Your task to perform on an android device: View the shopping cart on walmart. Search for energizer triple a on walmart, select the first entry, and add it to the cart. Image 0: 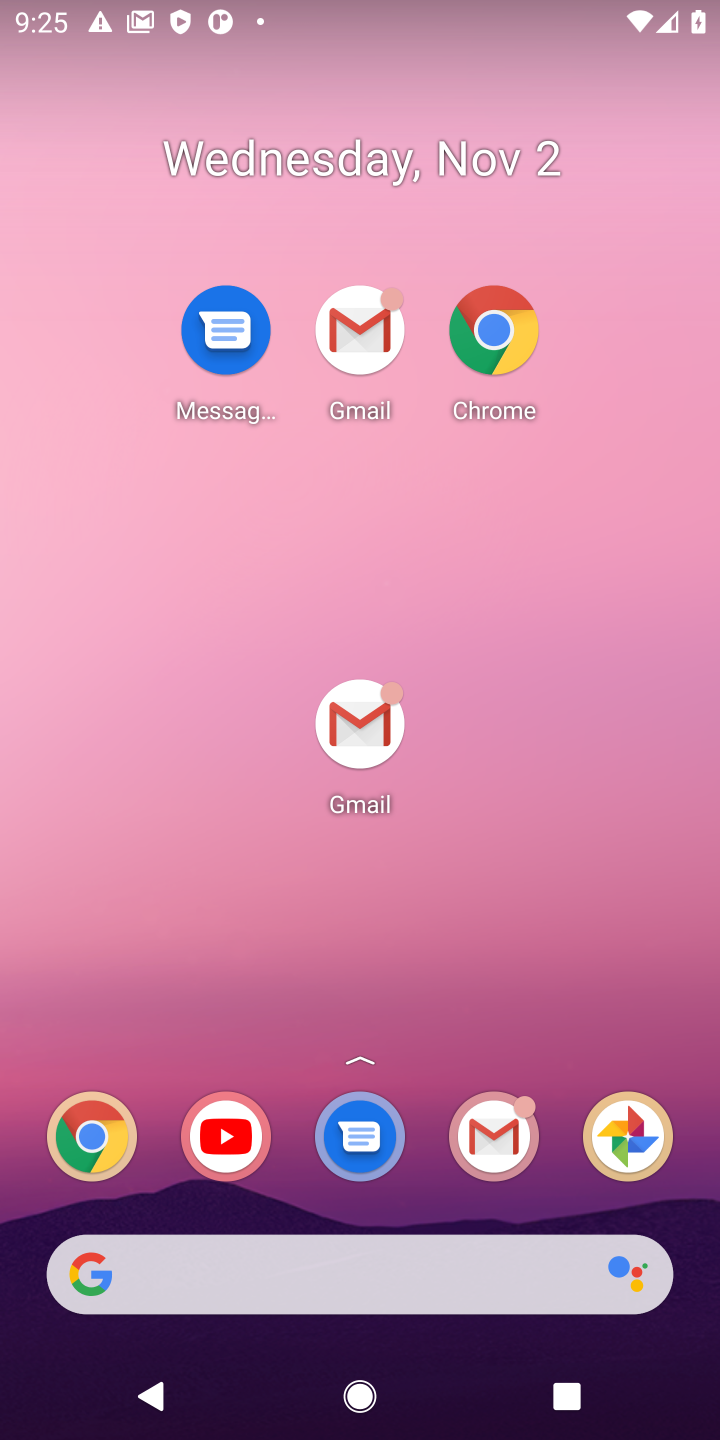
Step 0: drag from (309, 1245) to (308, 307)
Your task to perform on an android device: View the shopping cart on walmart. Search for energizer triple a on walmart, select the first entry, and add it to the cart. Image 1: 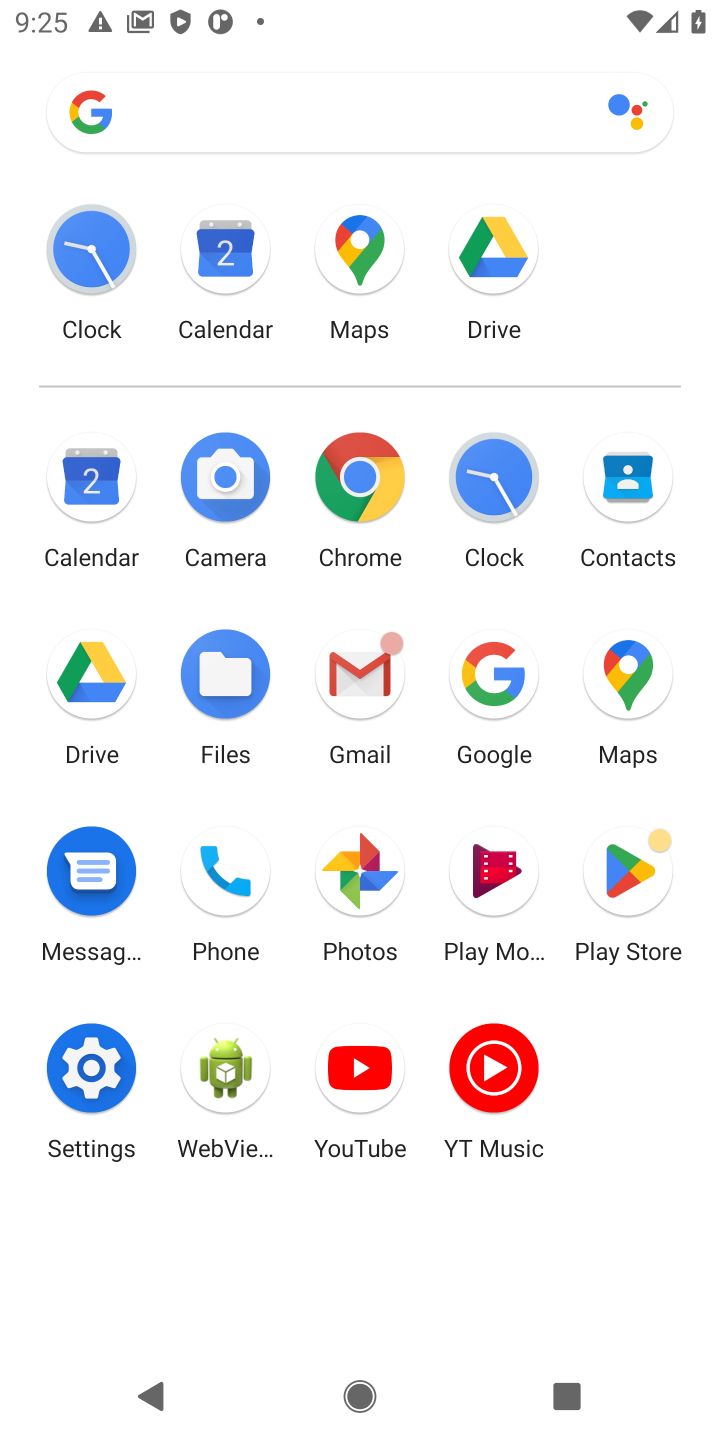
Step 1: click (486, 663)
Your task to perform on an android device: View the shopping cart on walmart. Search for energizer triple a on walmart, select the first entry, and add it to the cart. Image 2: 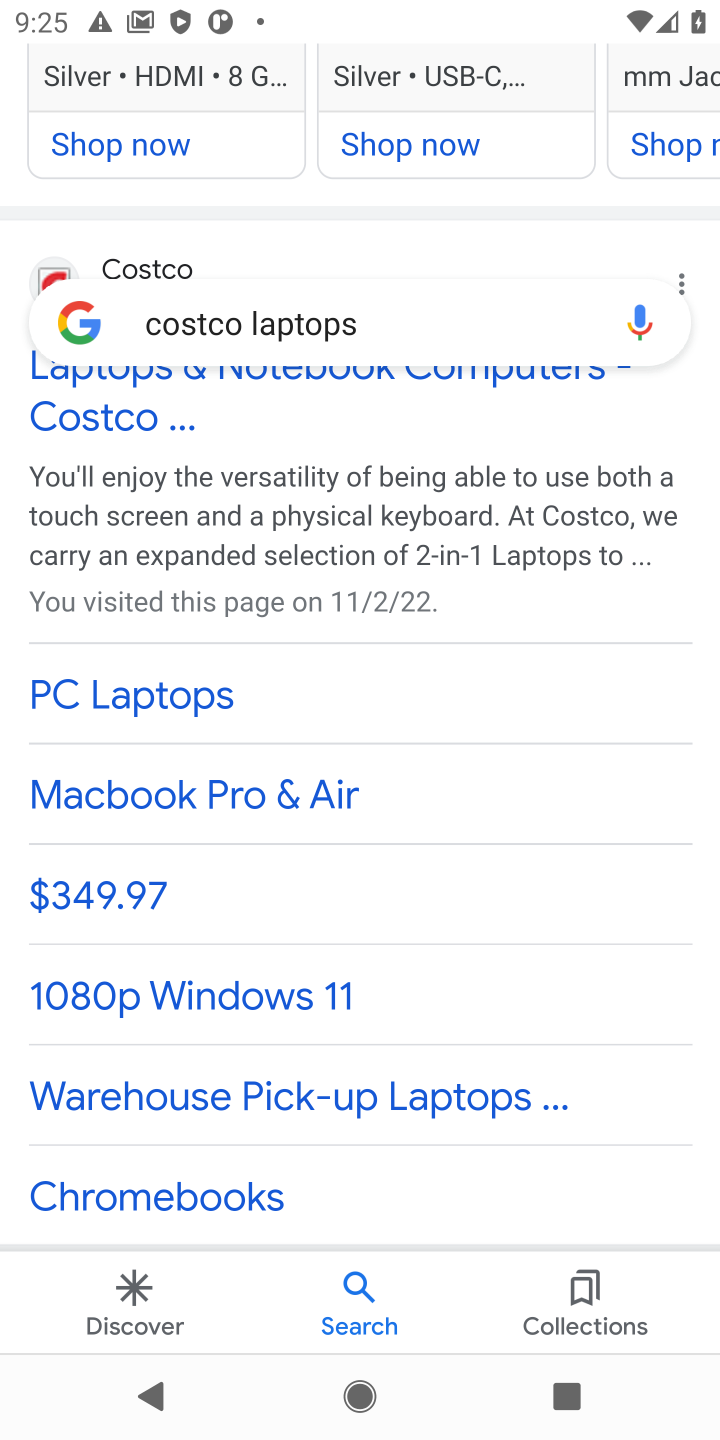
Step 2: click (369, 312)
Your task to perform on an android device: View the shopping cart on walmart. Search for energizer triple a on walmart, select the first entry, and add it to the cart. Image 3: 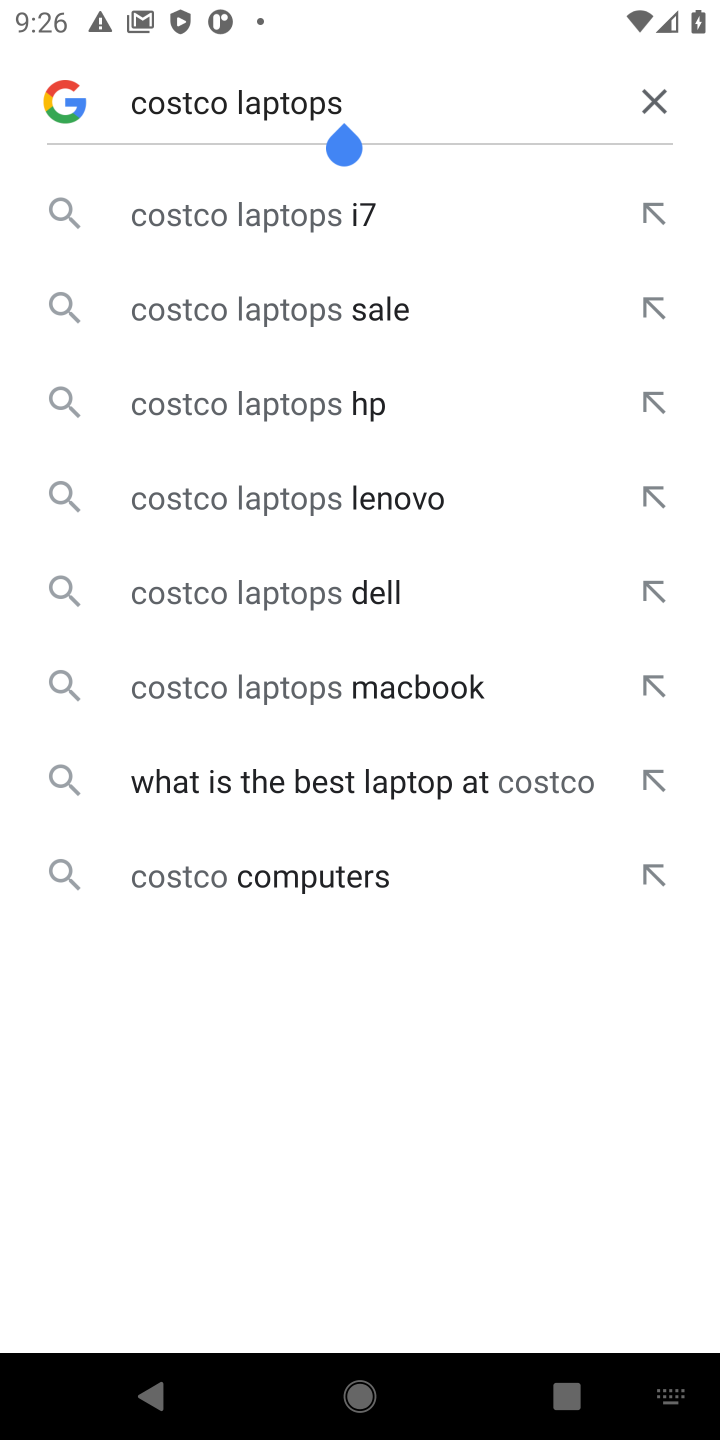
Step 3: click (654, 100)
Your task to perform on an android device: View the shopping cart on walmart. Search for energizer triple a on walmart, select the first entry, and add it to the cart. Image 4: 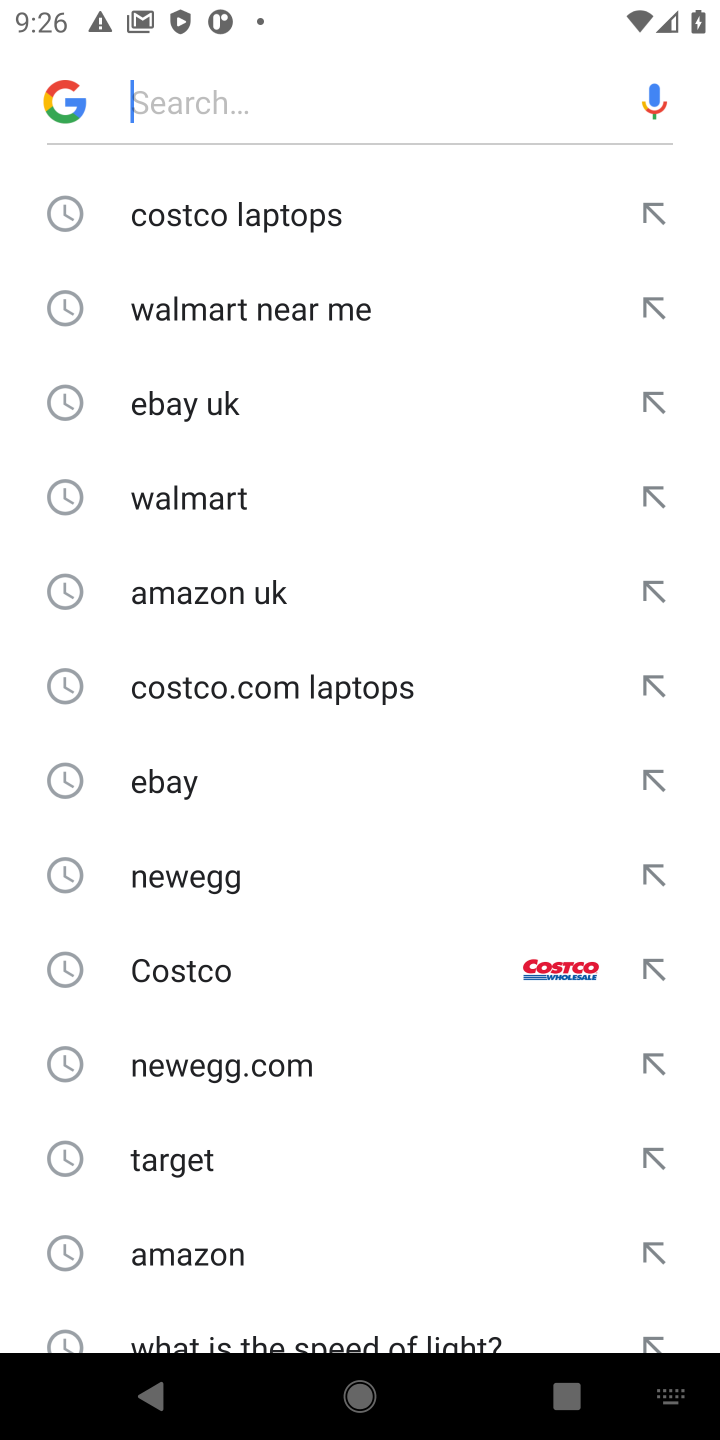
Step 4: click (274, 88)
Your task to perform on an android device: View the shopping cart on walmart. Search for energizer triple a on walmart, select the first entry, and add it to the cart. Image 5: 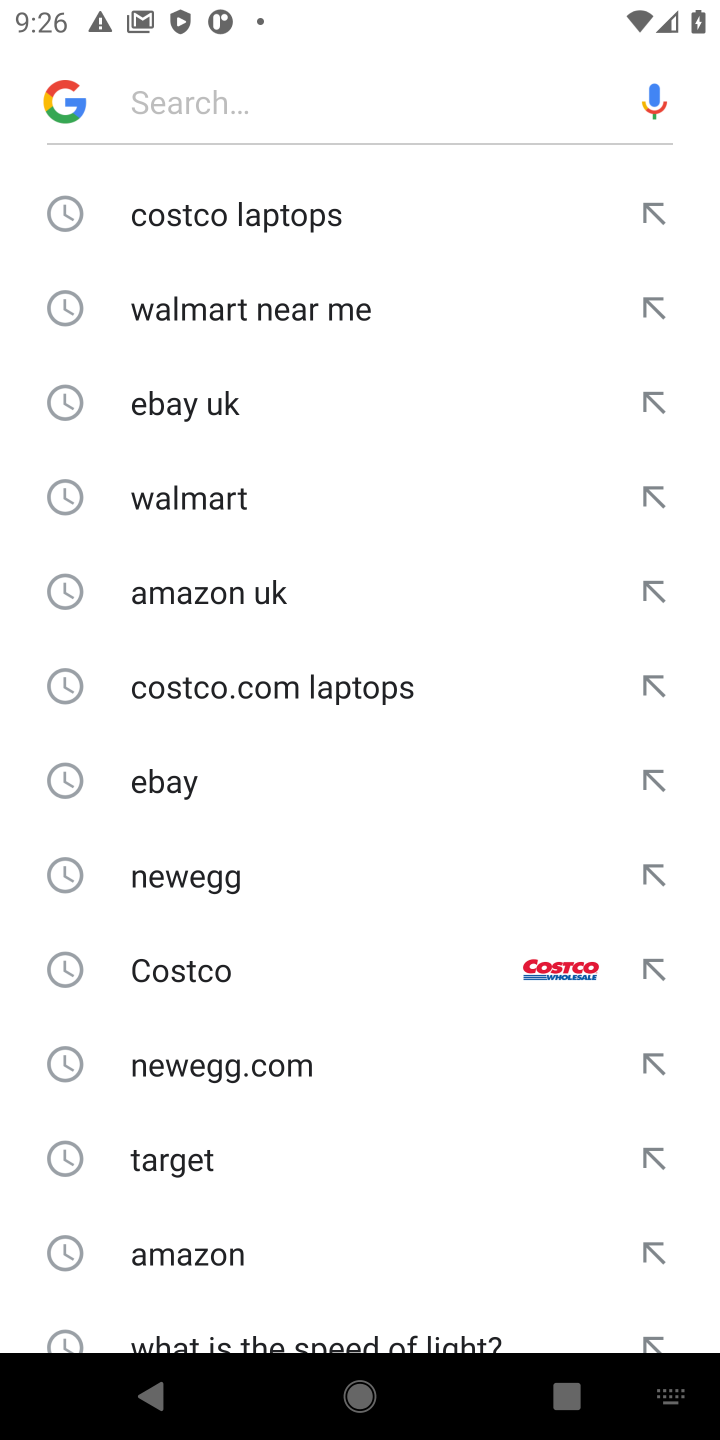
Step 5: type "walmart "
Your task to perform on an android device: View the shopping cart on walmart. Search for energizer triple a on walmart, select the first entry, and add it to the cart. Image 6: 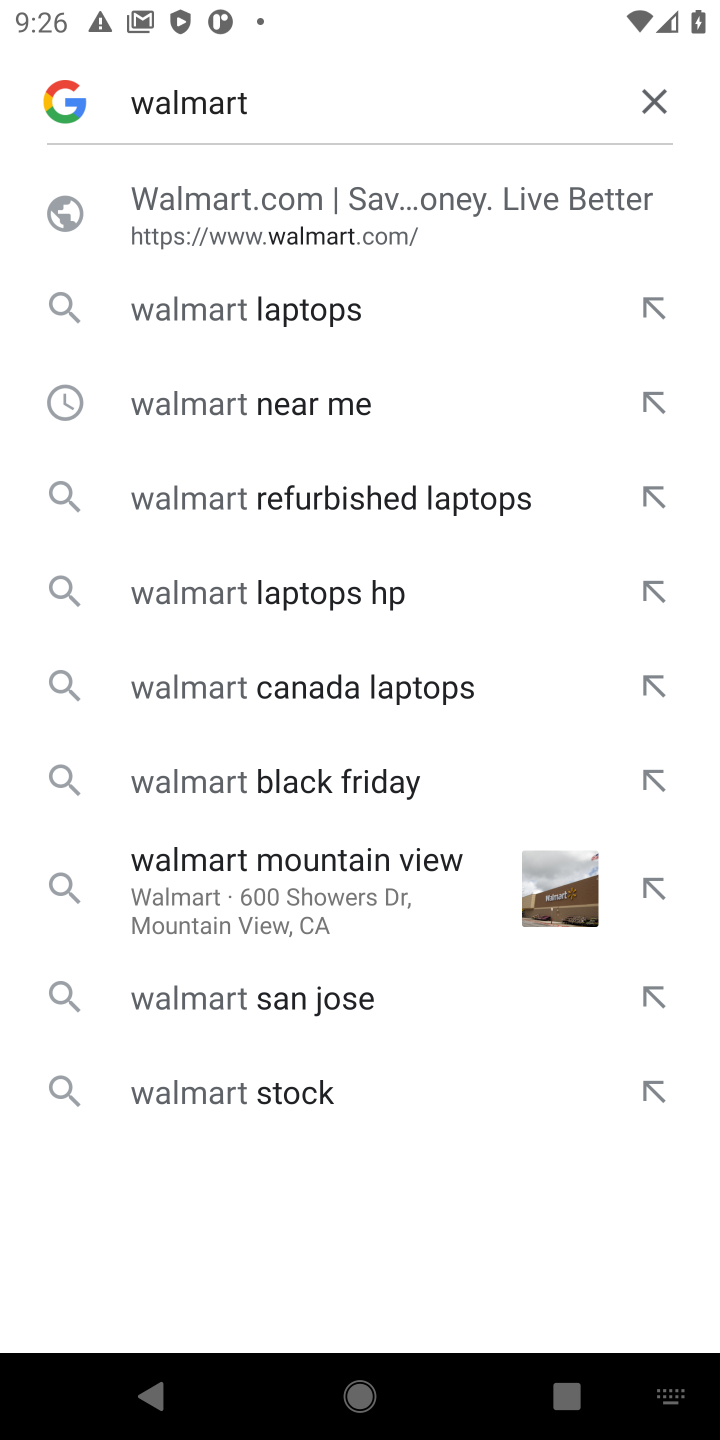
Step 6: click (315, 227)
Your task to perform on an android device: View the shopping cart on walmart. Search for energizer triple a on walmart, select the first entry, and add it to the cart. Image 7: 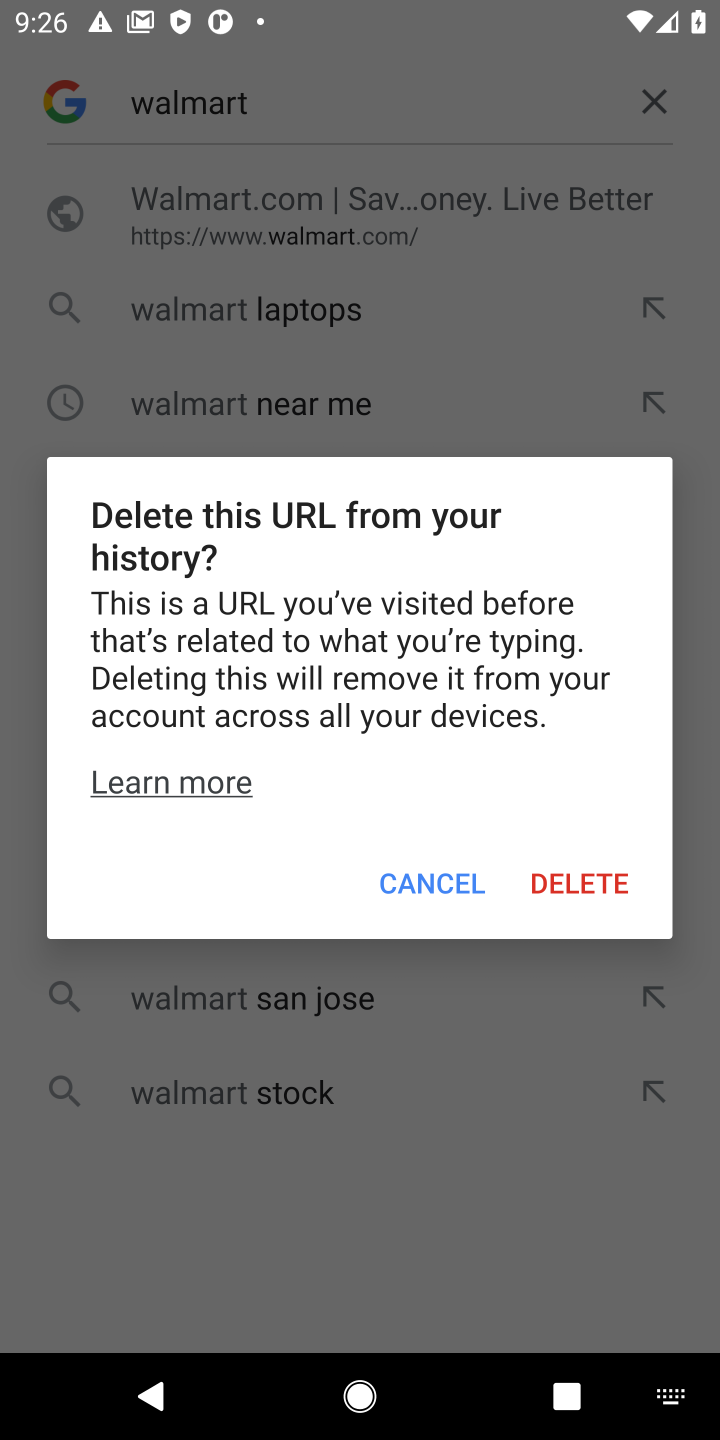
Step 7: click (426, 884)
Your task to perform on an android device: View the shopping cart on walmart. Search for energizer triple a on walmart, select the first entry, and add it to the cart. Image 8: 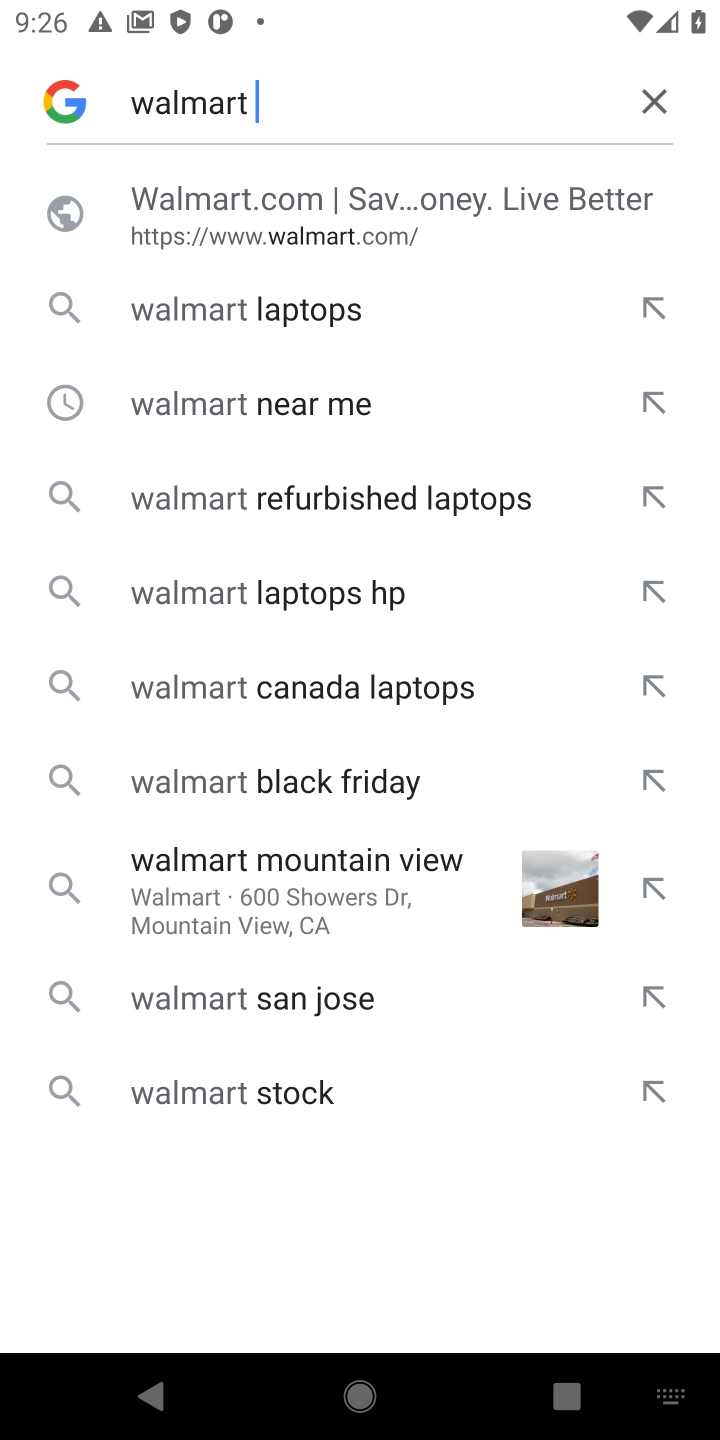
Step 8: click (289, 393)
Your task to perform on an android device: View the shopping cart on walmart. Search for energizer triple a on walmart, select the first entry, and add it to the cart. Image 9: 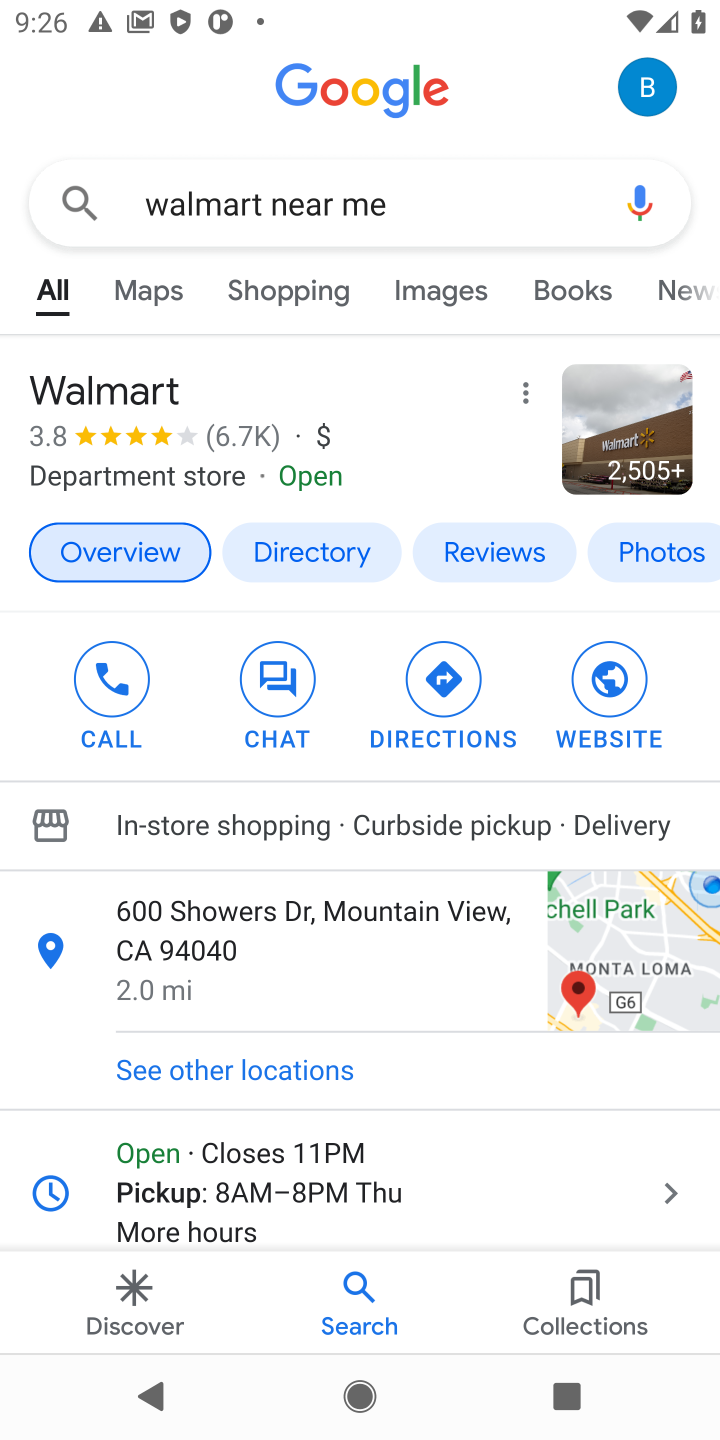
Step 9: drag from (222, 1092) to (291, 349)
Your task to perform on an android device: View the shopping cart on walmart. Search for energizer triple a on walmart, select the first entry, and add it to the cart. Image 10: 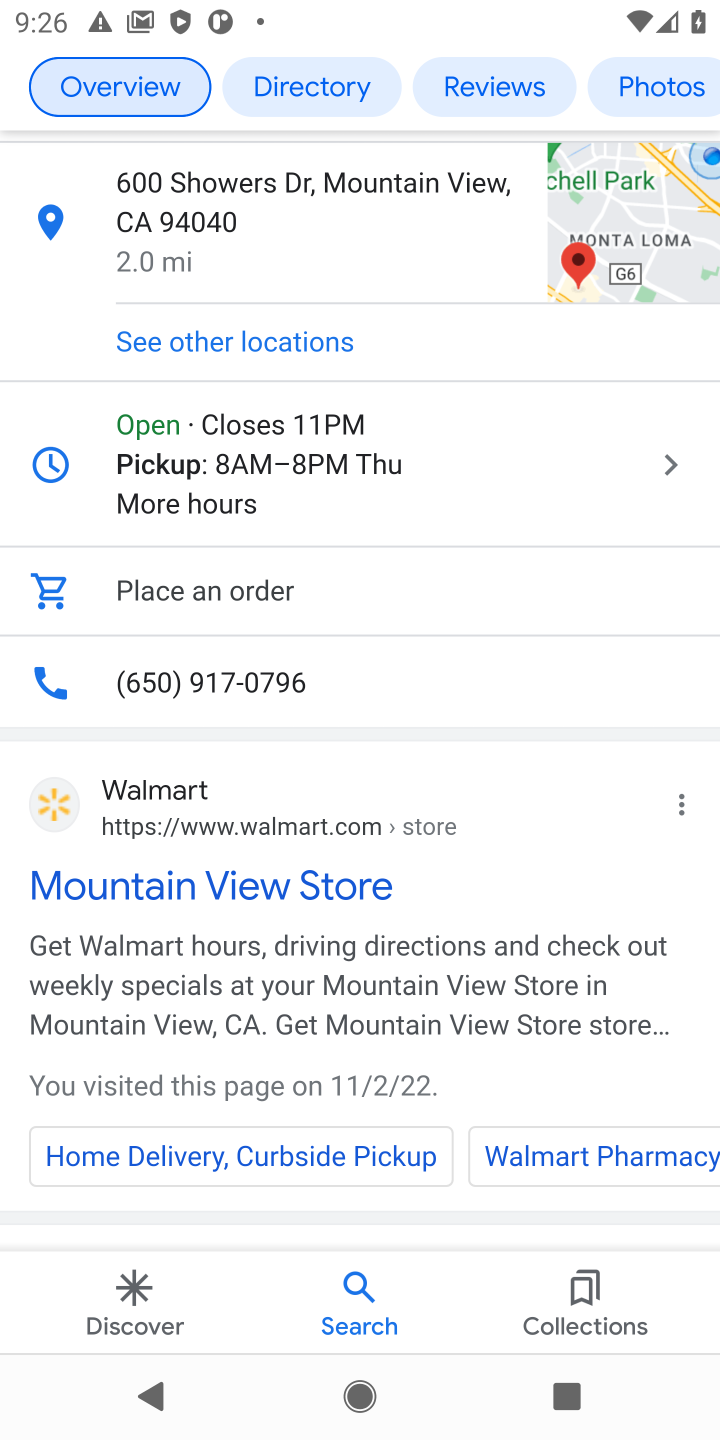
Step 10: click (60, 803)
Your task to perform on an android device: View the shopping cart on walmart. Search for energizer triple a on walmart, select the first entry, and add it to the cart. Image 11: 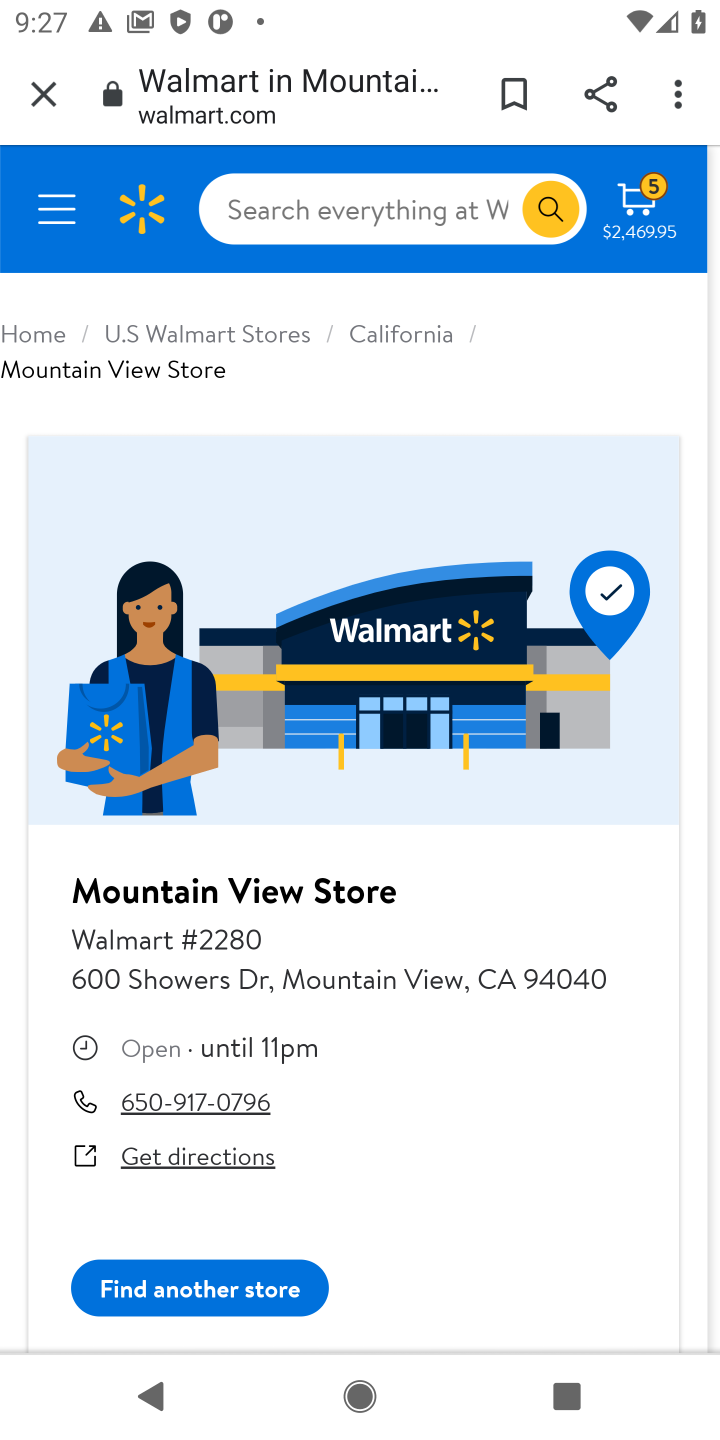
Step 11: click (353, 189)
Your task to perform on an android device: View the shopping cart on walmart. Search for energizer triple a on walmart, select the first entry, and add it to the cart. Image 12: 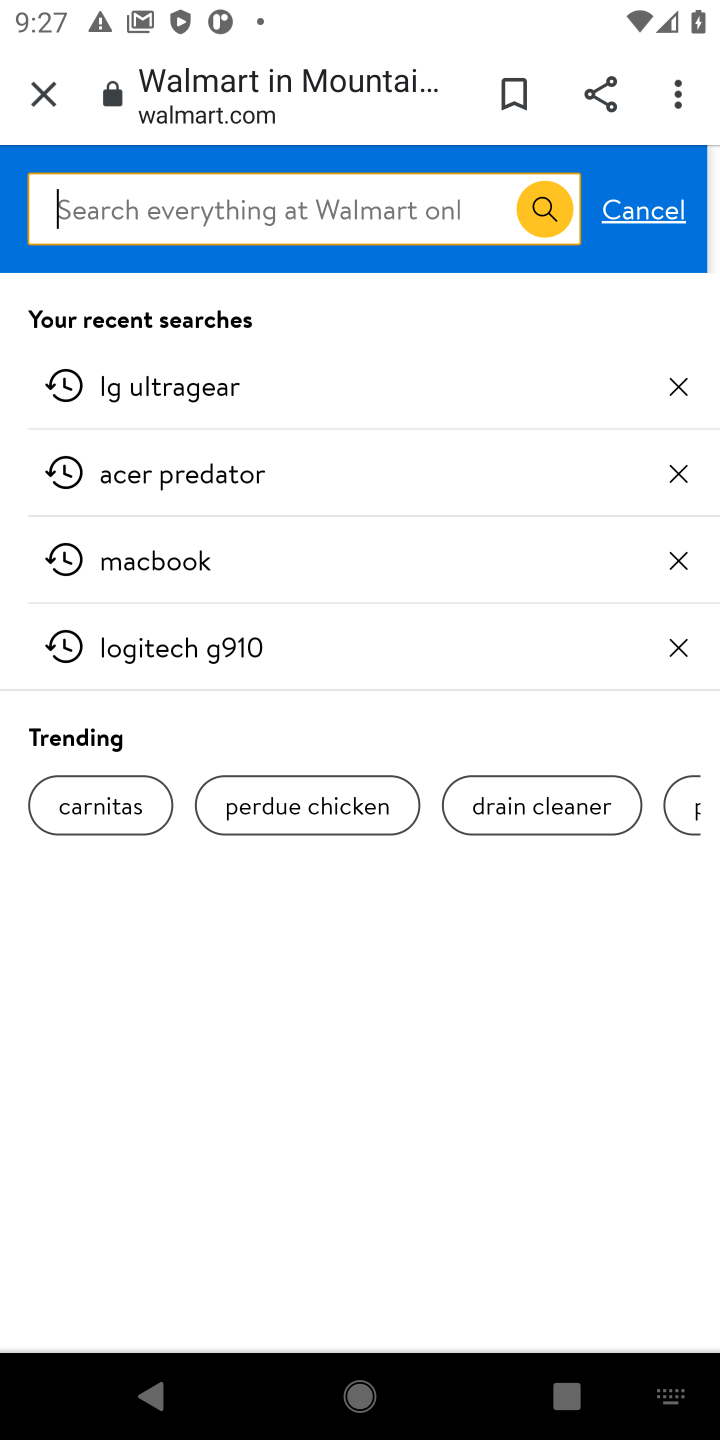
Step 12: click (290, 198)
Your task to perform on an android device: View the shopping cart on walmart. Search for energizer triple a on walmart, select the first entry, and add it to the cart. Image 13: 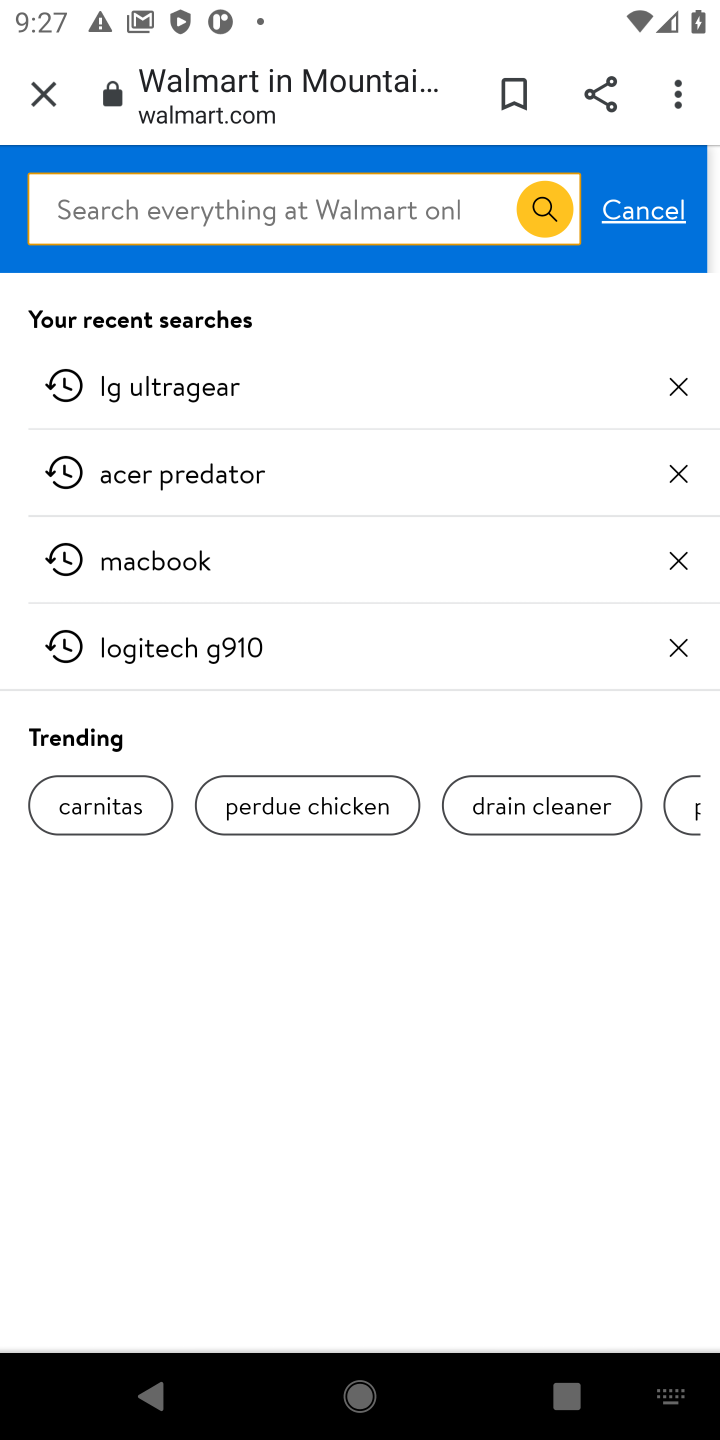
Step 13: type "energizer triple "
Your task to perform on an android device: View the shopping cart on walmart. Search for energizer triple a on walmart, select the first entry, and add it to the cart. Image 14: 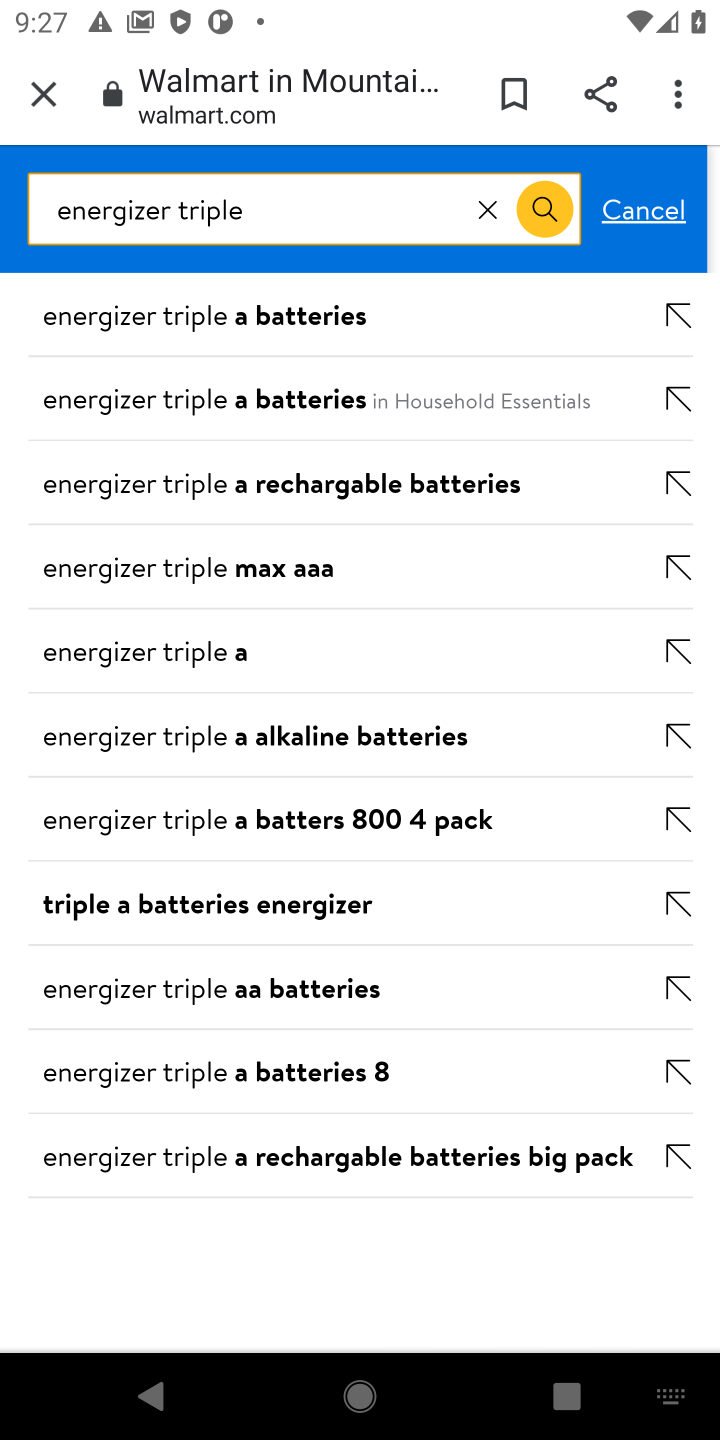
Step 14: click (271, 313)
Your task to perform on an android device: View the shopping cart on walmart. Search for energizer triple a on walmart, select the first entry, and add it to the cart. Image 15: 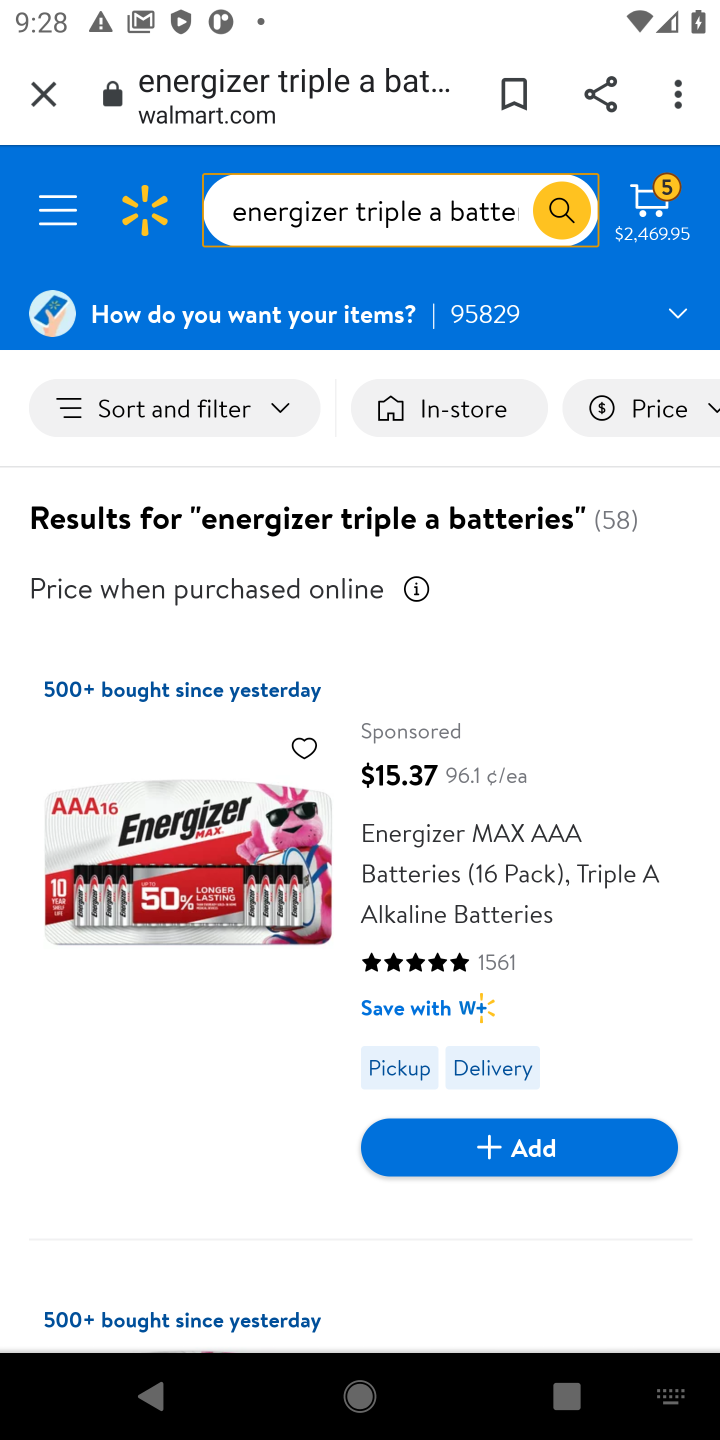
Step 15: click (545, 1146)
Your task to perform on an android device: View the shopping cart on walmart. Search for energizer triple a on walmart, select the first entry, and add it to the cart. Image 16: 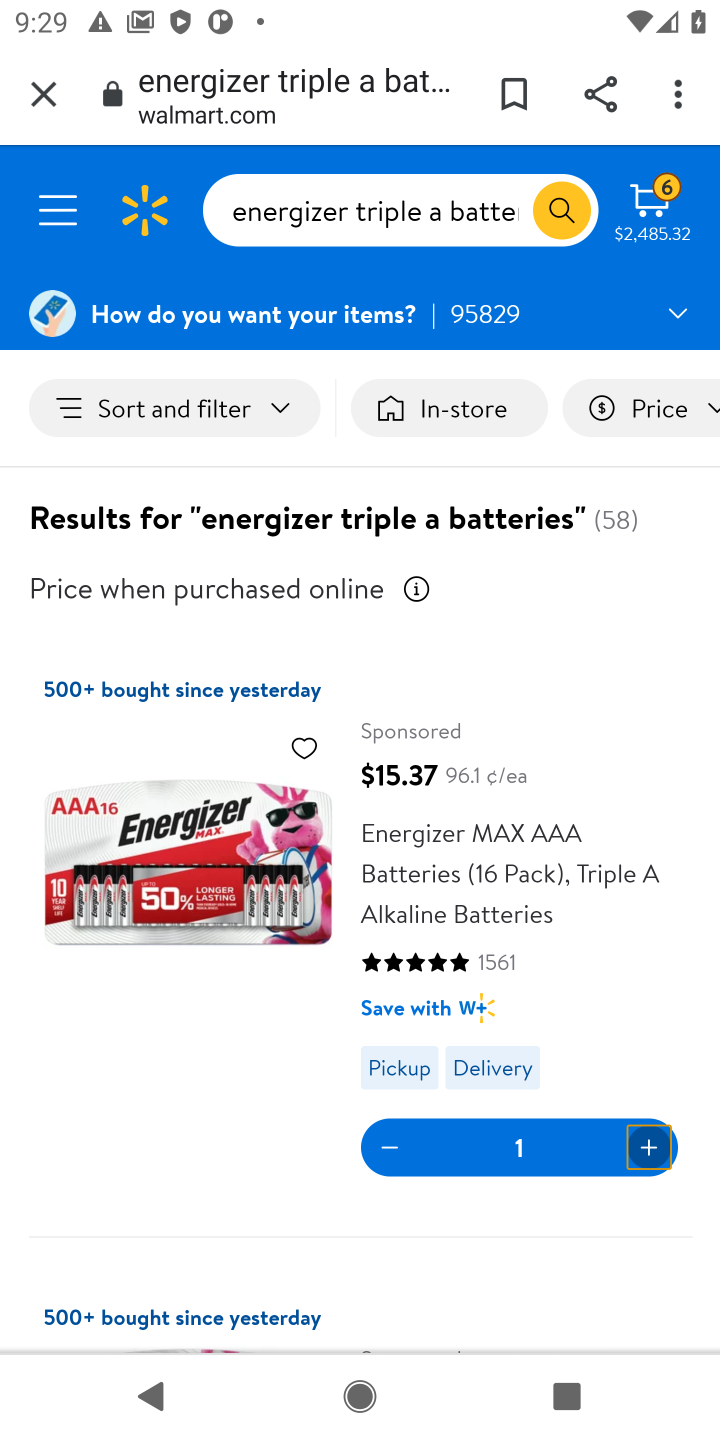
Step 16: task complete